Your task to perform on an android device: change keyboard looks Image 0: 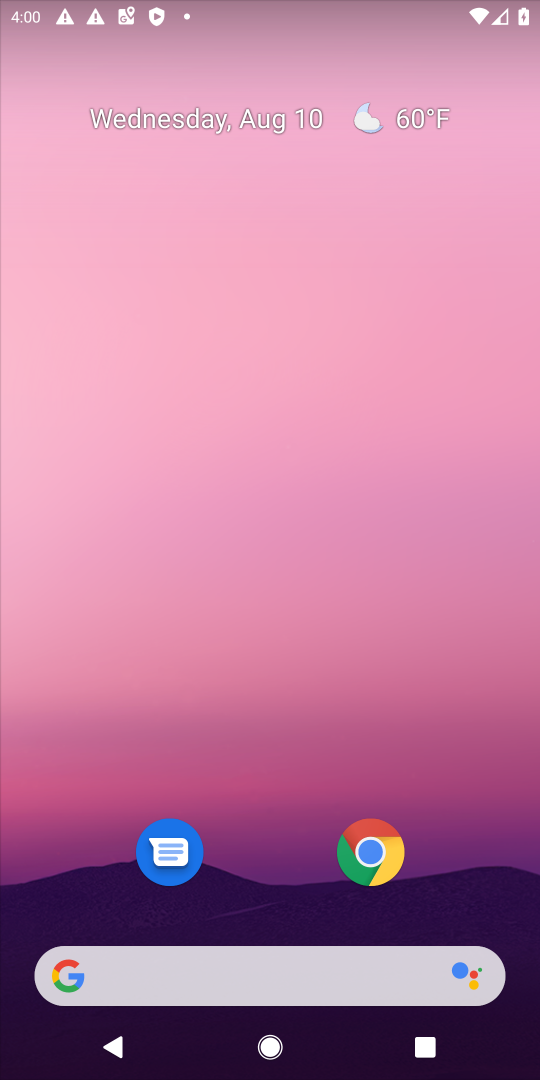
Step 0: drag from (497, 941) to (502, 230)
Your task to perform on an android device: change keyboard looks Image 1: 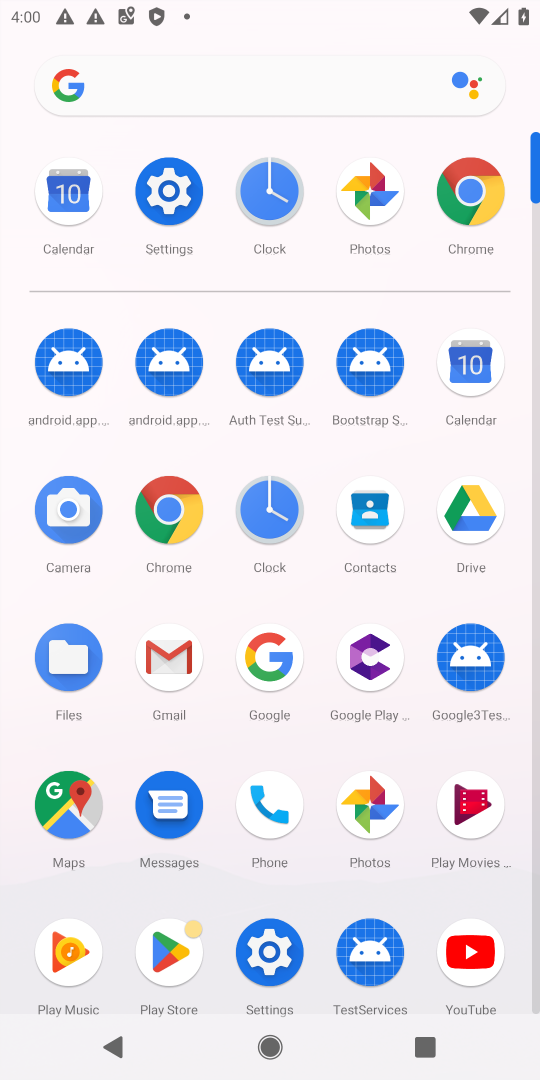
Step 1: click (276, 521)
Your task to perform on an android device: change keyboard looks Image 2: 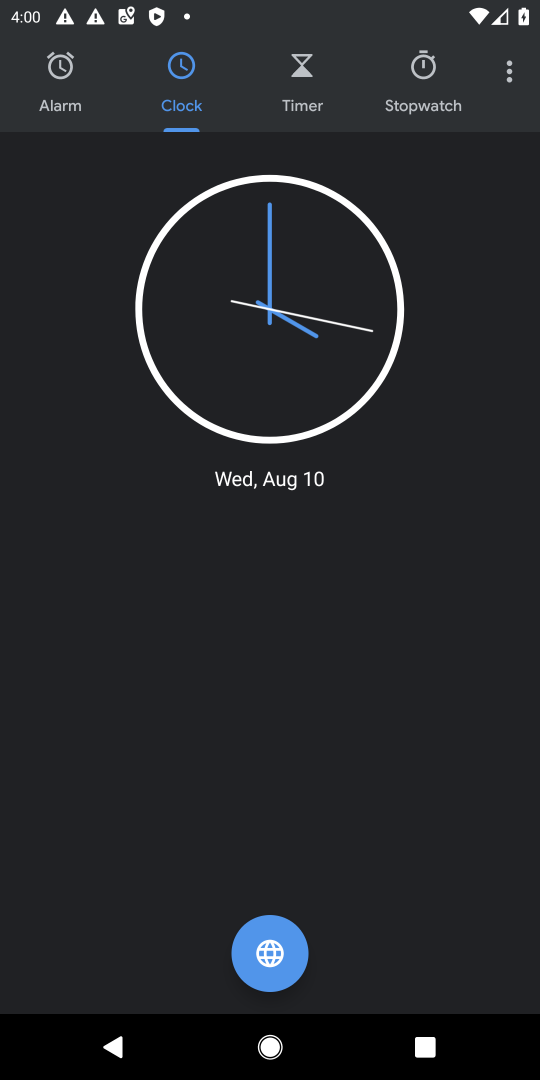
Step 2: click (496, 65)
Your task to perform on an android device: change keyboard looks Image 3: 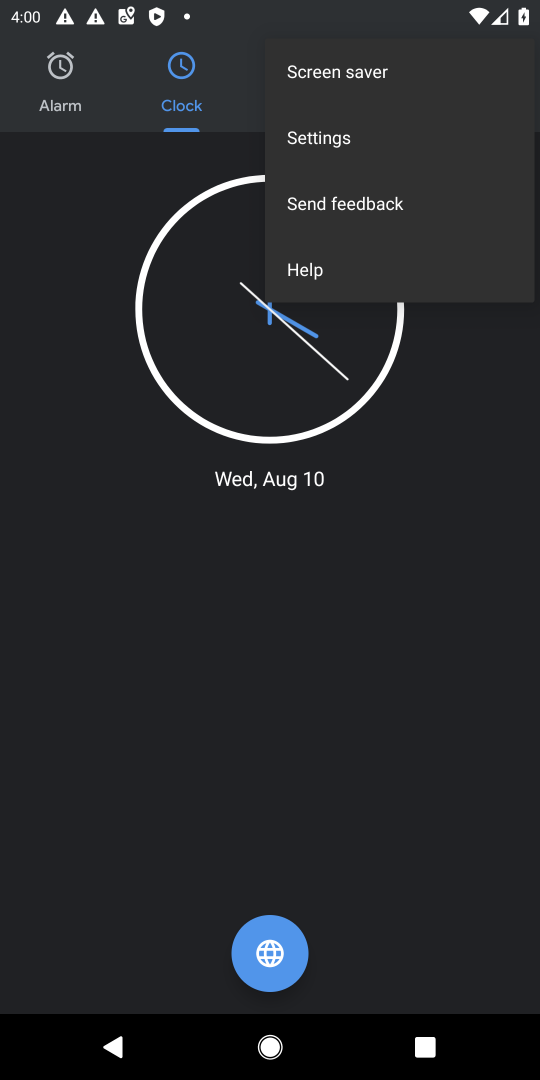
Step 3: press home button
Your task to perform on an android device: change keyboard looks Image 4: 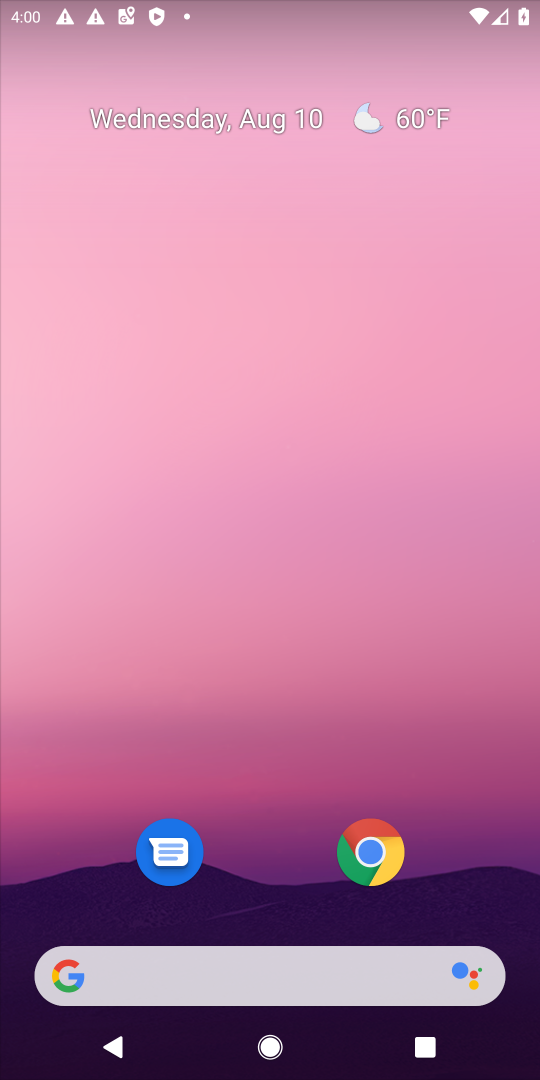
Step 4: drag from (268, 913) to (515, 262)
Your task to perform on an android device: change keyboard looks Image 5: 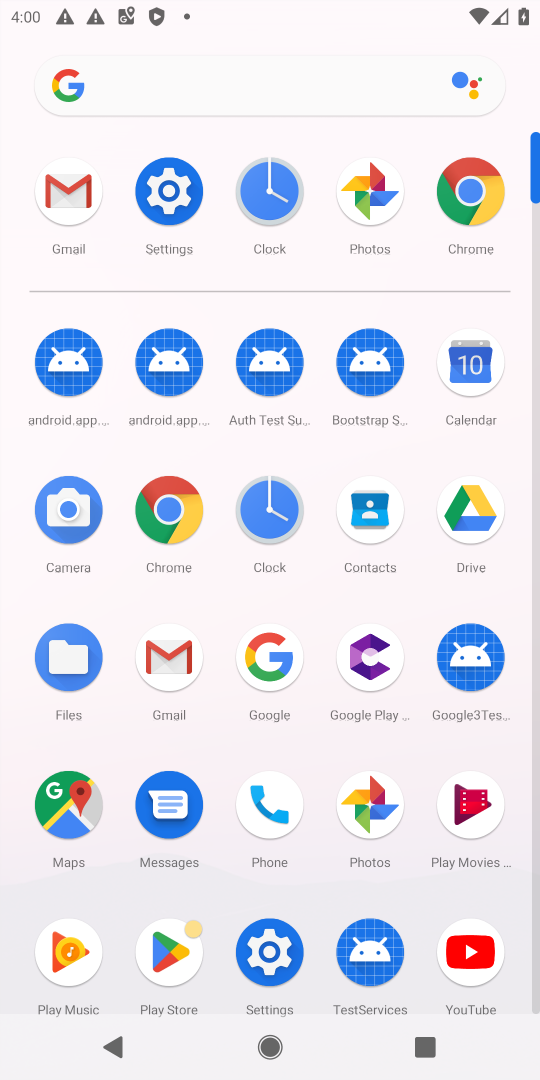
Step 5: click (156, 204)
Your task to perform on an android device: change keyboard looks Image 6: 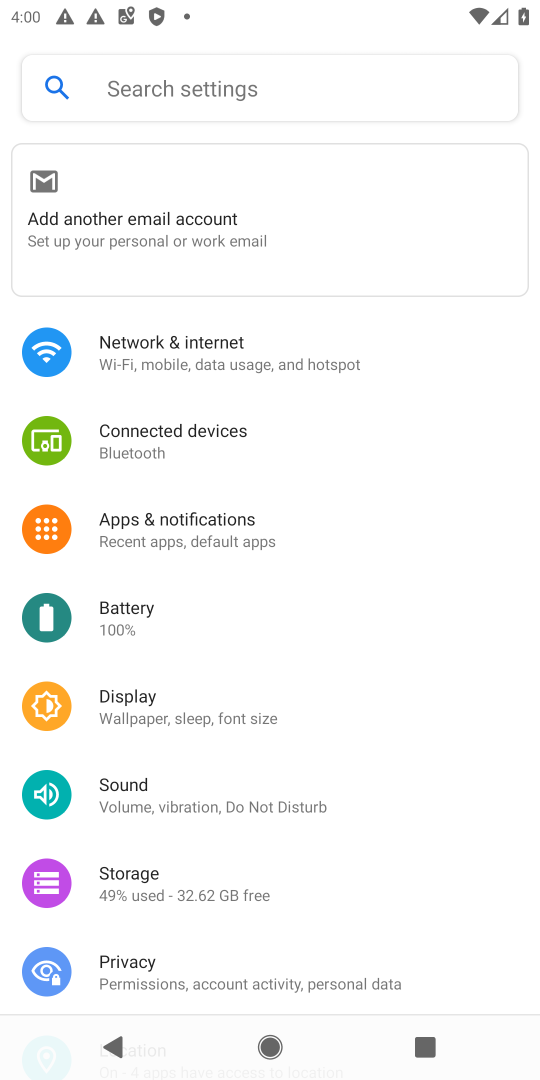
Step 6: drag from (248, 889) to (374, 162)
Your task to perform on an android device: change keyboard looks Image 7: 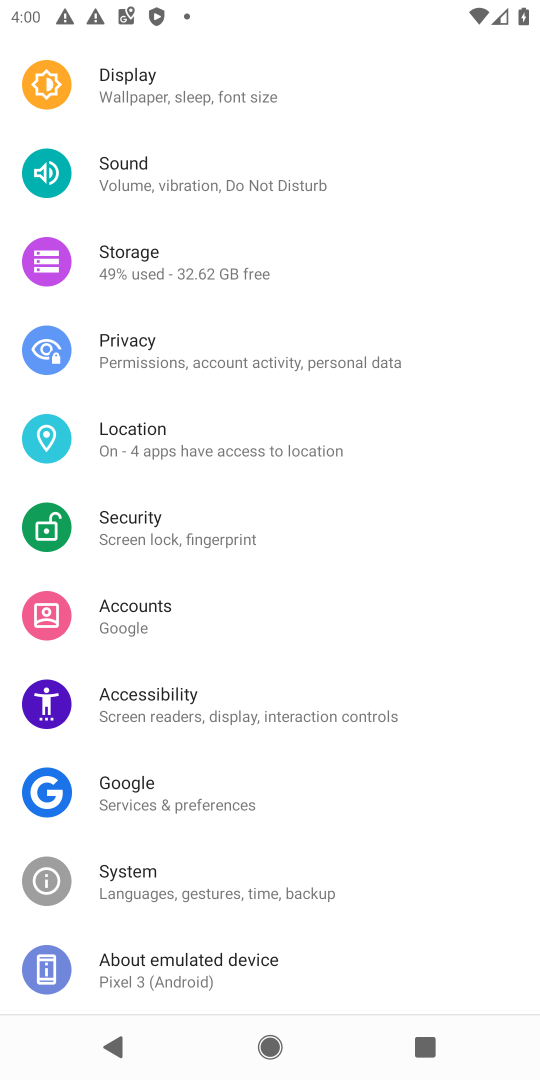
Step 7: click (158, 890)
Your task to perform on an android device: change keyboard looks Image 8: 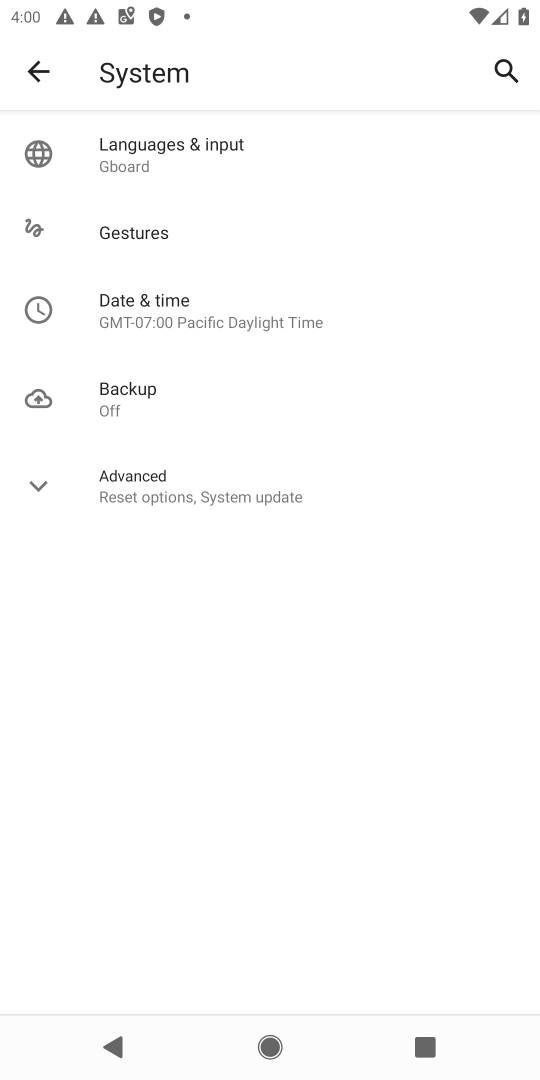
Step 8: click (260, 163)
Your task to perform on an android device: change keyboard looks Image 9: 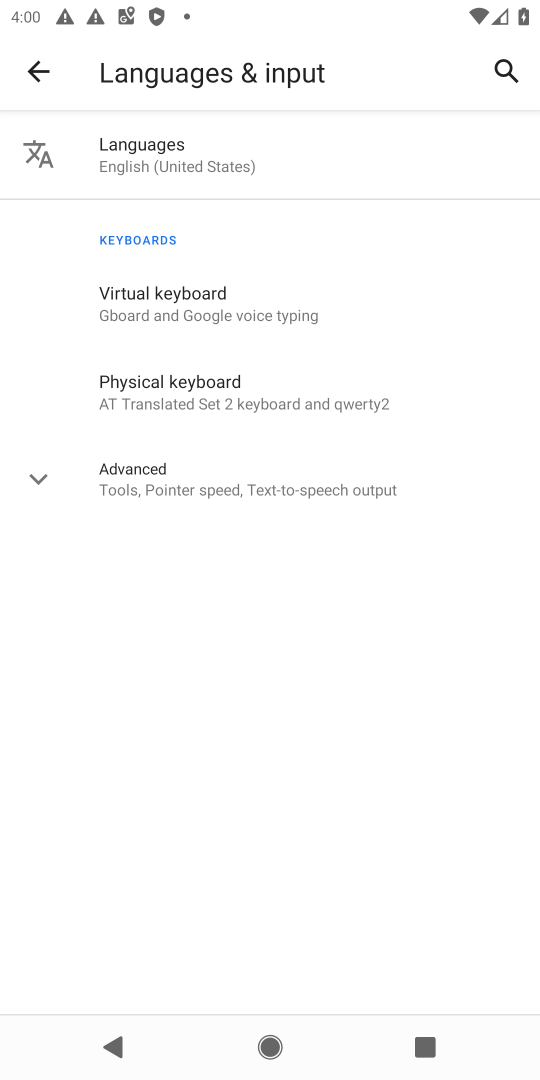
Step 9: click (221, 318)
Your task to perform on an android device: change keyboard looks Image 10: 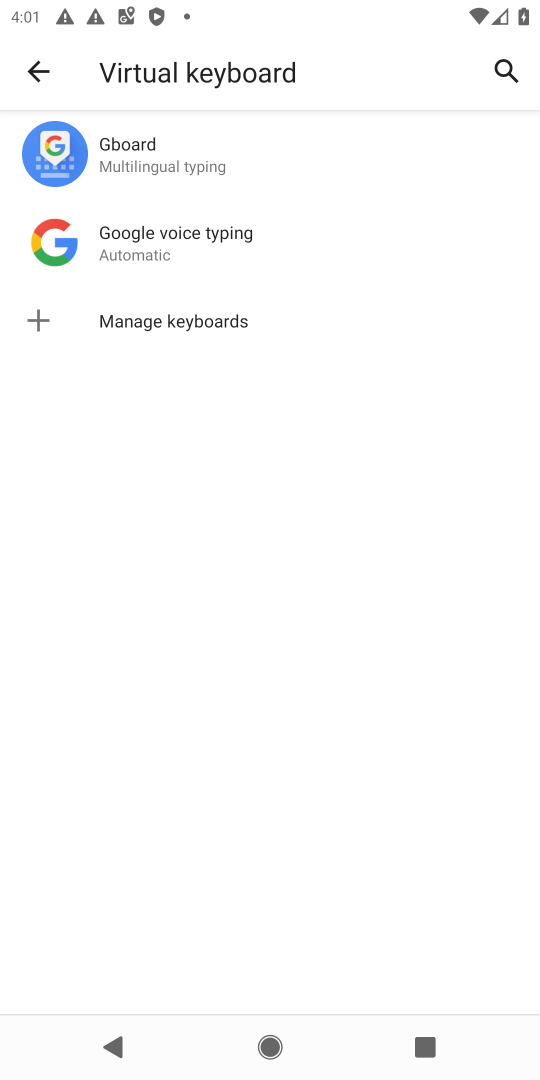
Step 10: click (174, 144)
Your task to perform on an android device: change keyboard looks Image 11: 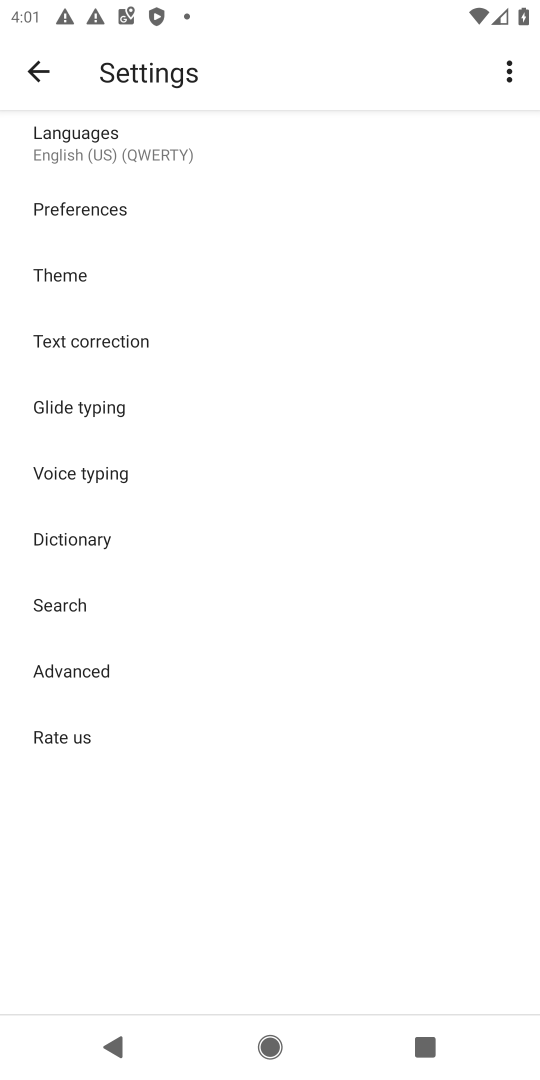
Step 11: click (77, 278)
Your task to perform on an android device: change keyboard looks Image 12: 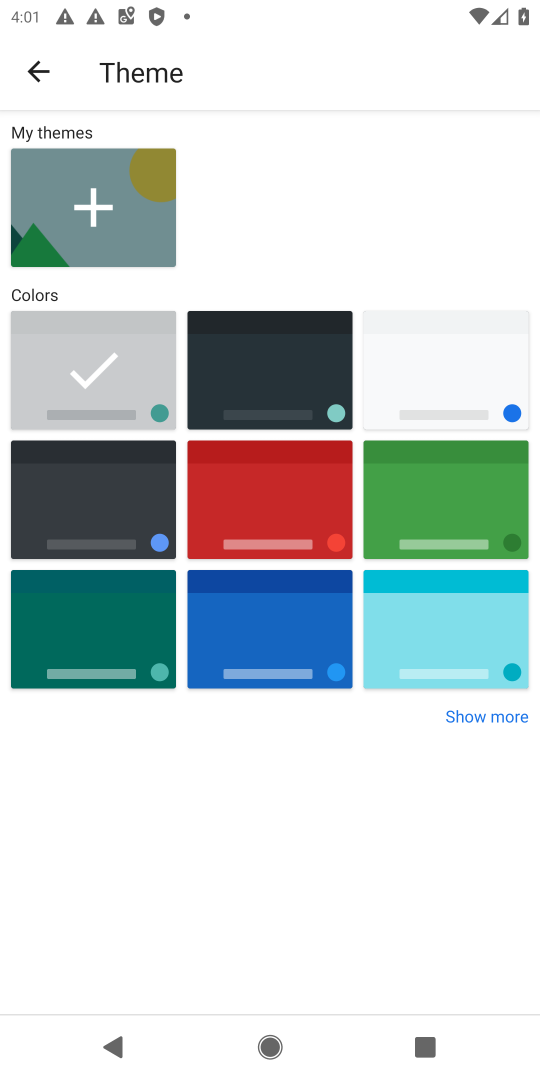
Step 12: click (476, 395)
Your task to perform on an android device: change keyboard looks Image 13: 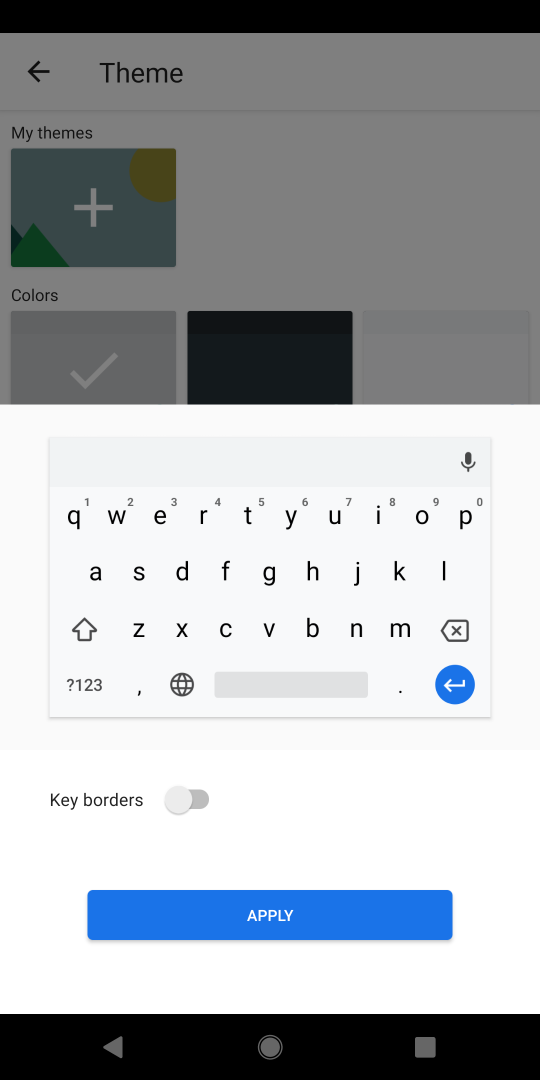
Step 13: click (328, 903)
Your task to perform on an android device: change keyboard looks Image 14: 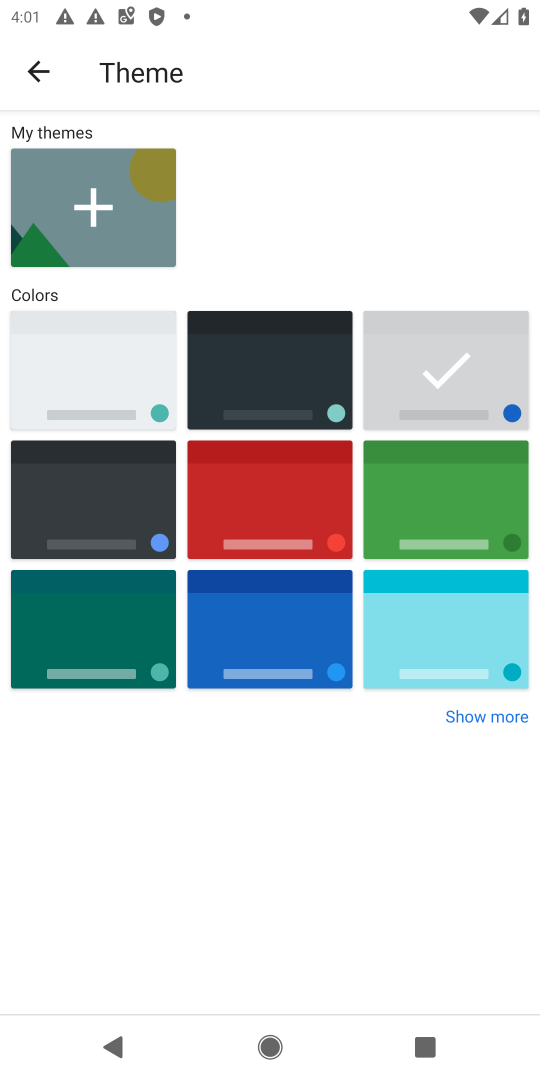
Step 14: task complete